Your task to perform on an android device: Empty the shopping cart on costco.com. Add "jbl flip 4" to the cart on costco.com, then select checkout. Image 0: 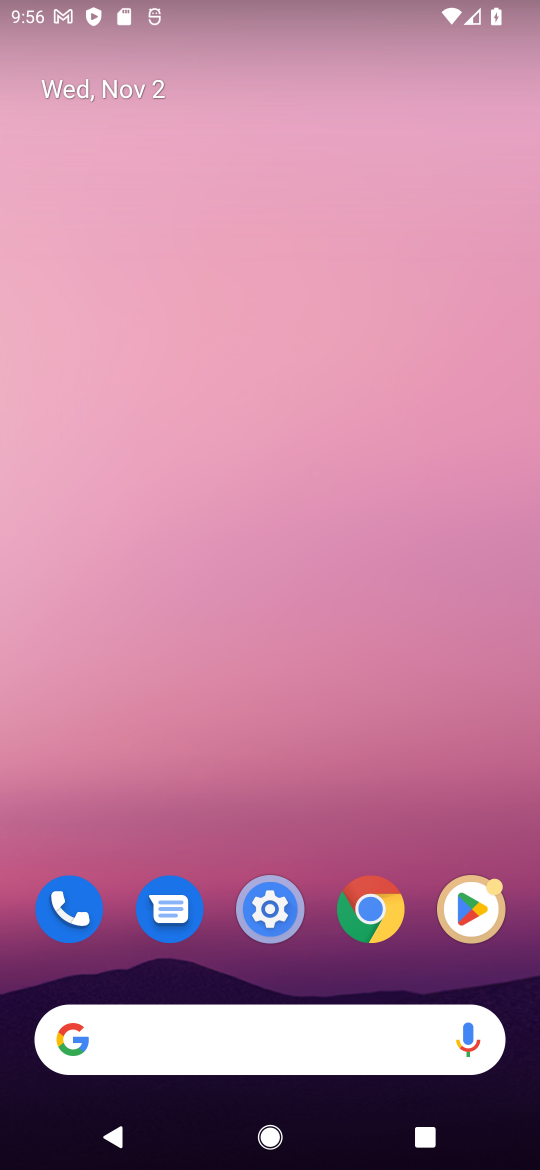
Step 0: click (364, 914)
Your task to perform on an android device: Empty the shopping cart on costco.com. Add "jbl flip 4" to the cart on costco.com, then select checkout. Image 1: 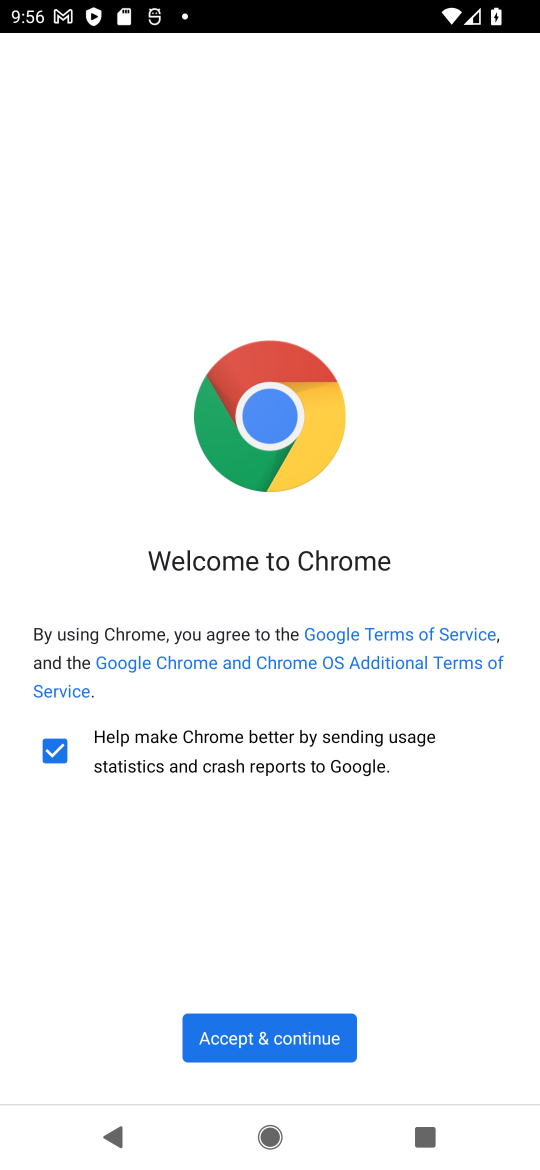
Step 1: click (286, 1051)
Your task to perform on an android device: Empty the shopping cart on costco.com. Add "jbl flip 4" to the cart on costco.com, then select checkout. Image 2: 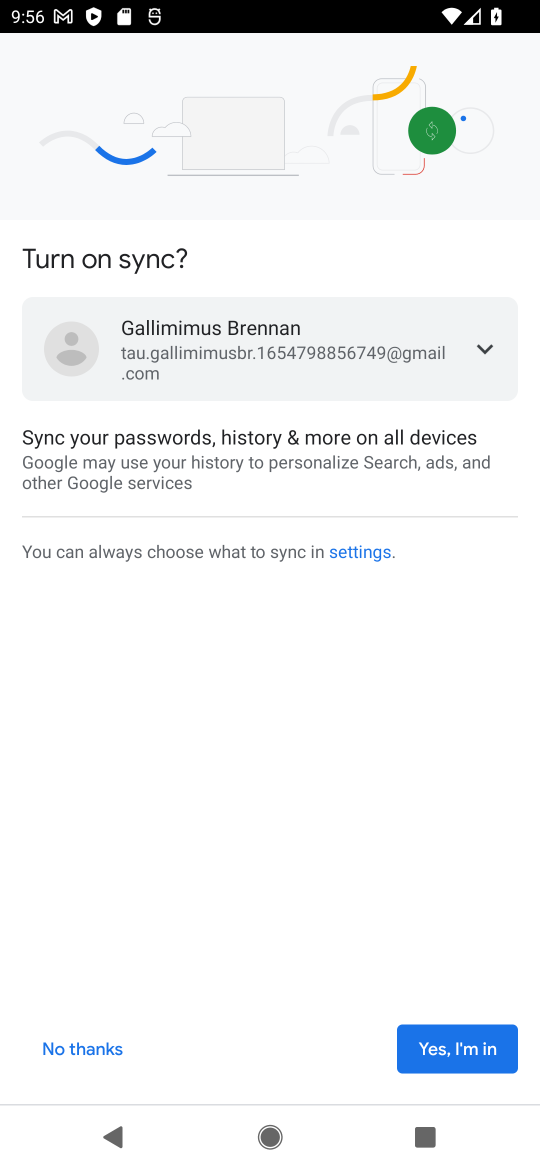
Step 2: click (487, 1044)
Your task to perform on an android device: Empty the shopping cart on costco.com. Add "jbl flip 4" to the cart on costco.com, then select checkout. Image 3: 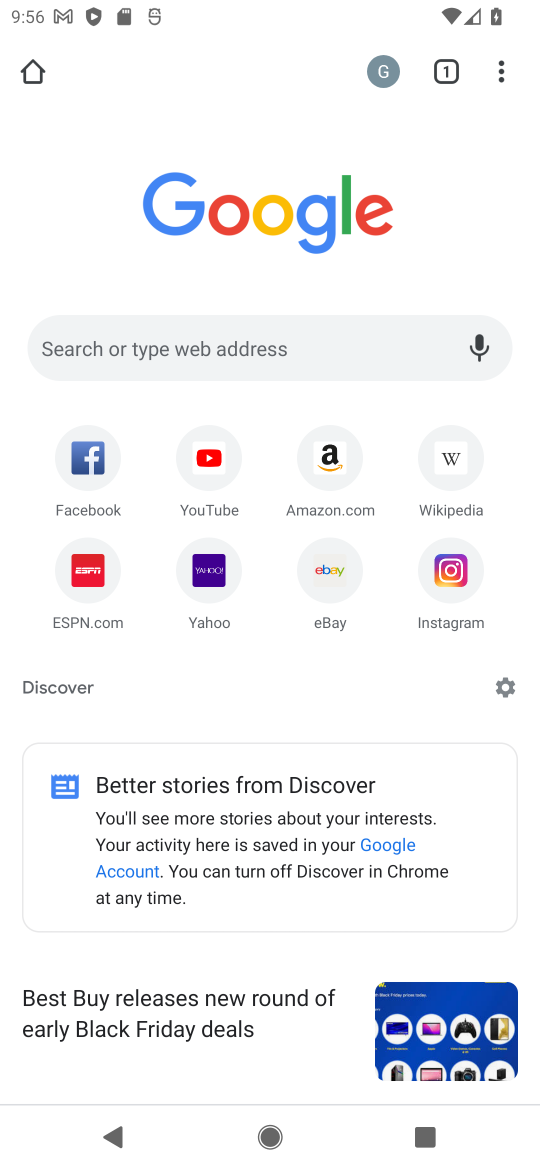
Step 3: click (317, 361)
Your task to perform on an android device: Empty the shopping cart on costco.com. Add "jbl flip 4" to the cart on costco.com, then select checkout. Image 4: 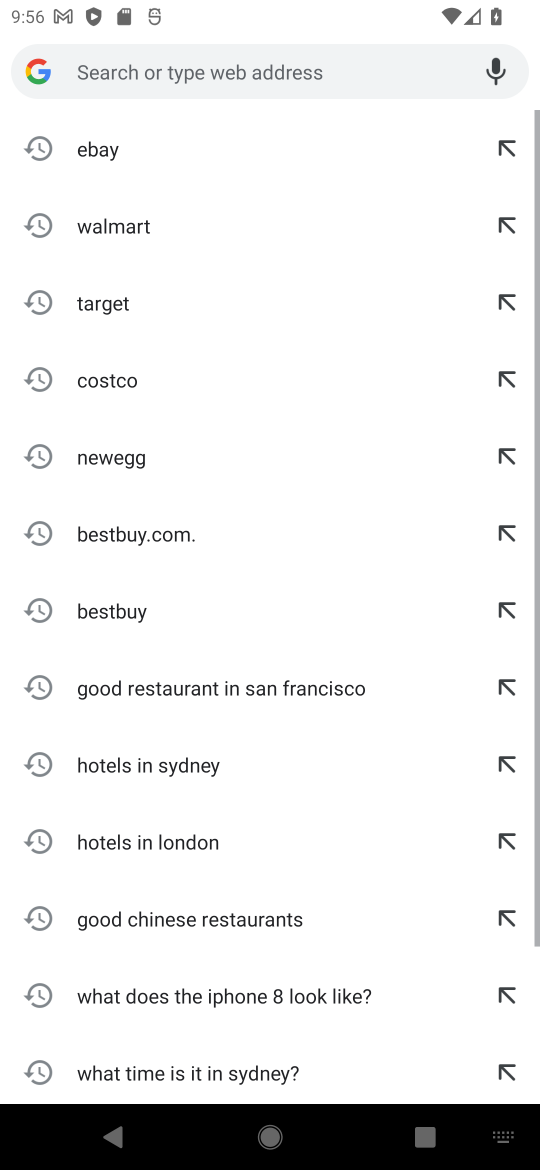
Step 4: type "costco.com"
Your task to perform on an android device: Empty the shopping cart on costco.com. Add "jbl flip 4" to the cart on costco.com, then select checkout. Image 5: 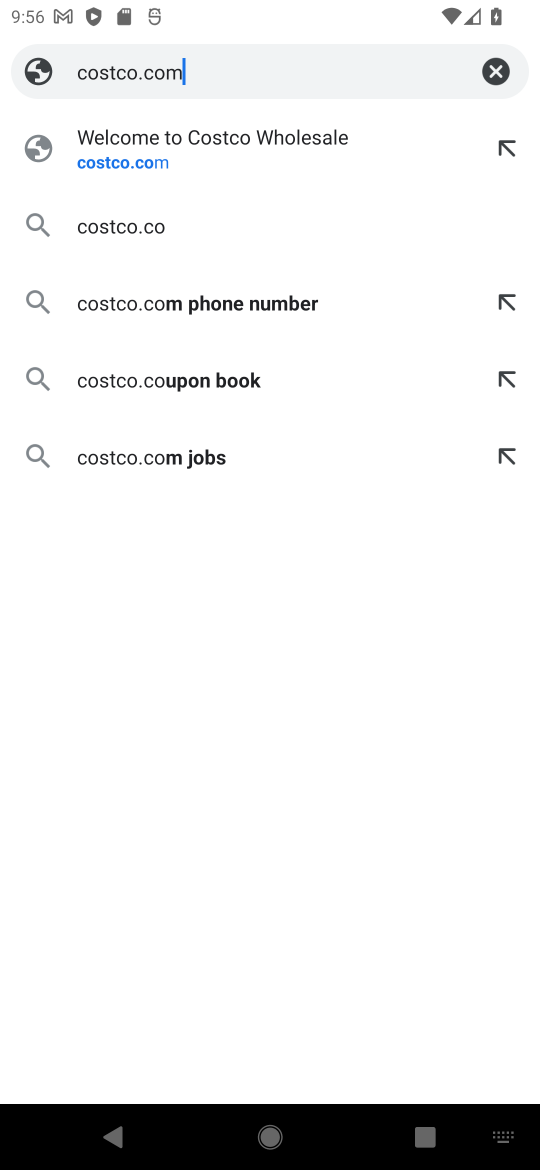
Step 5: type ""
Your task to perform on an android device: Empty the shopping cart on costco.com. Add "jbl flip 4" to the cart on costco.com, then select checkout. Image 6: 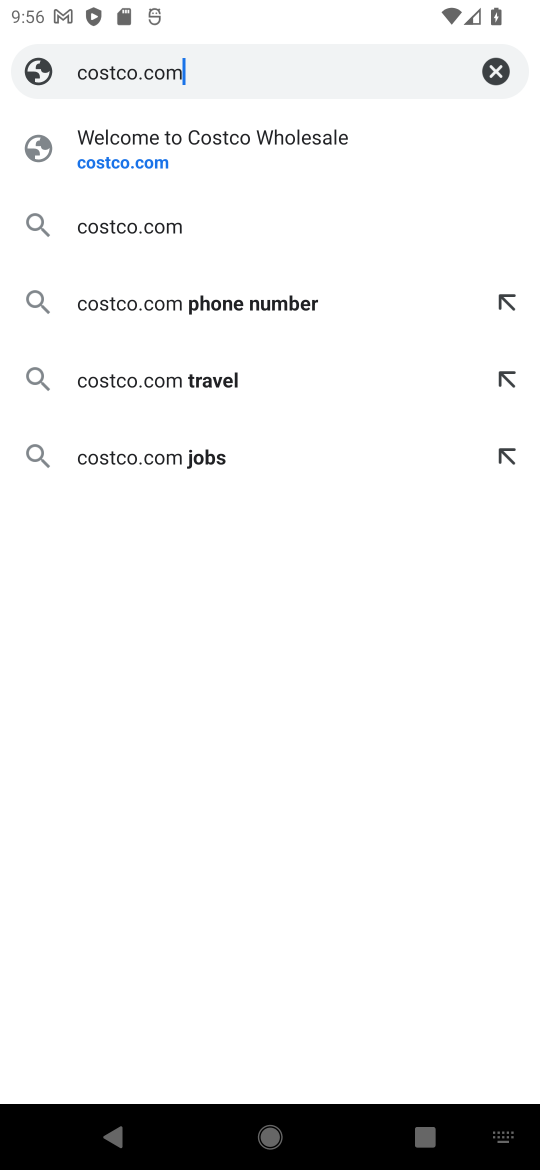
Step 6: press enter
Your task to perform on an android device: Empty the shopping cart on costco.com. Add "jbl flip 4" to the cart on costco.com, then select checkout. Image 7: 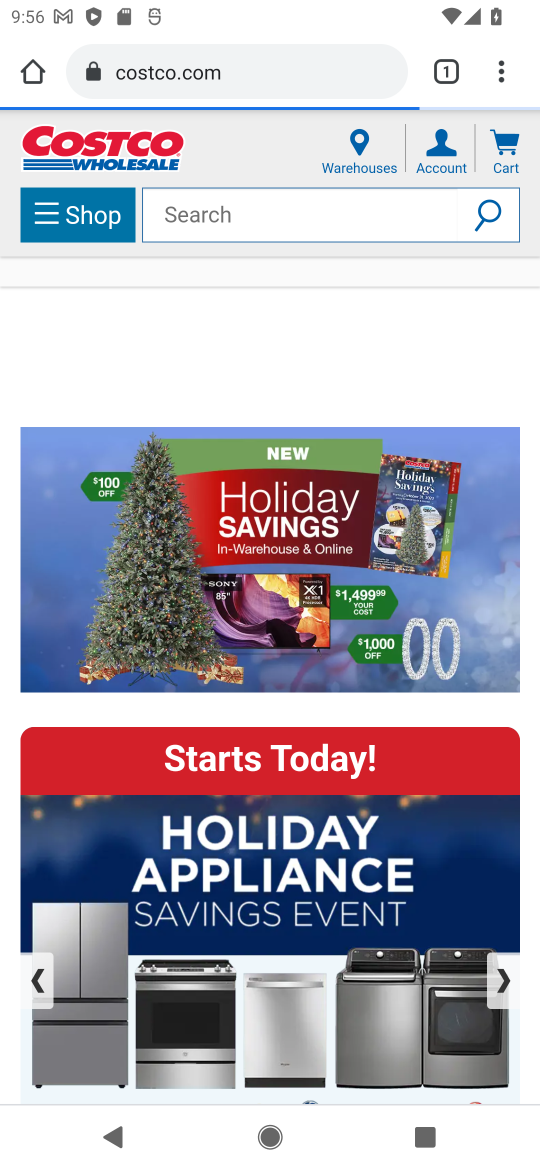
Step 7: click (499, 157)
Your task to perform on an android device: Empty the shopping cart on costco.com. Add "jbl flip 4" to the cart on costco.com, then select checkout. Image 8: 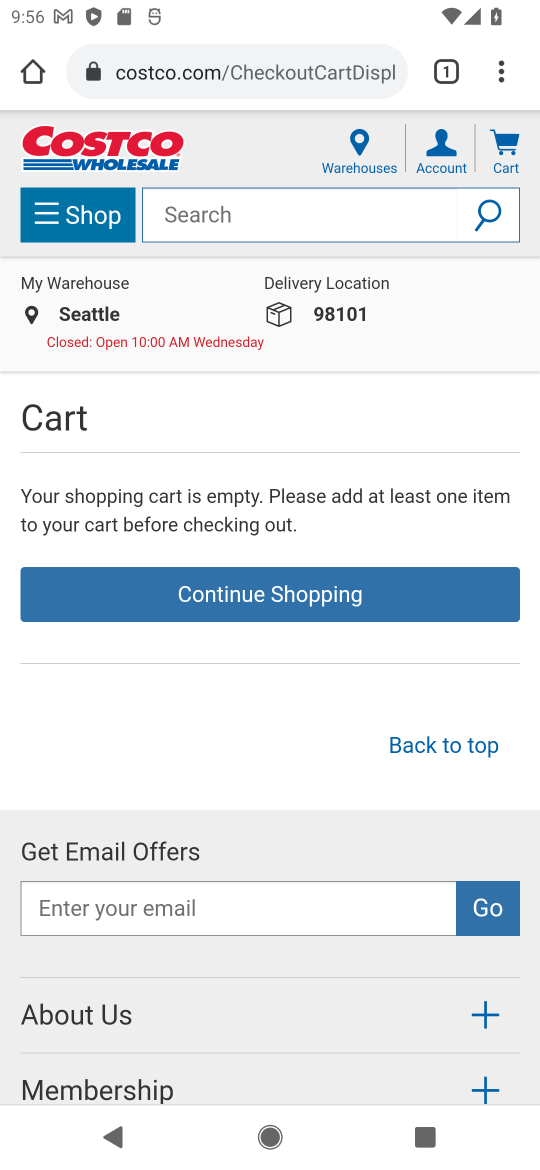
Step 8: click (248, 223)
Your task to perform on an android device: Empty the shopping cart on costco.com. Add "jbl flip 4" to the cart on costco.com, then select checkout. Image 9: 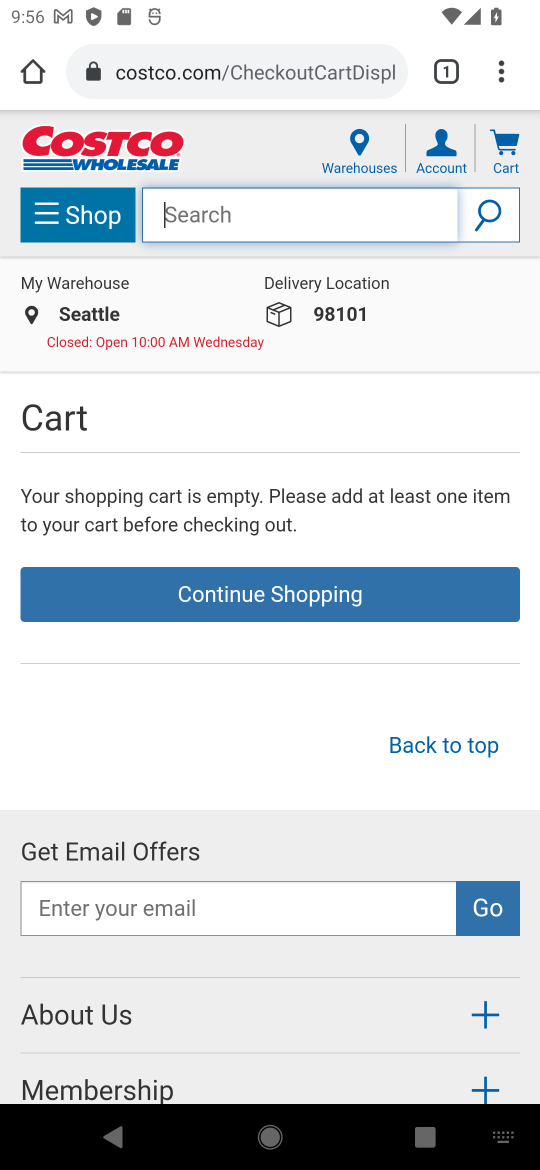
Step 9: type "jbl flip 4"
Your task to perform on an android device: Empty the shopping cart on costco.com. Add "jbl flip 4" to the cart on costco.com, then select checkout. Image 10: 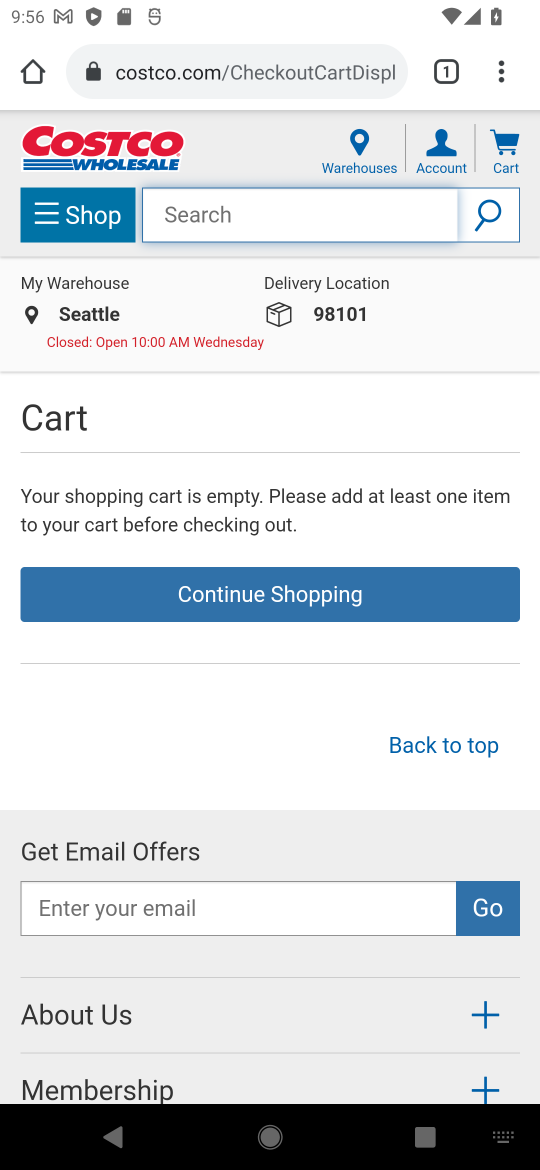
Step 10: type ""
Your task to perform on an android device: Empty the shopping cart on costco.com. Add "jbl flip 4" to the cart on costco.com, then select checkout. Image 11: 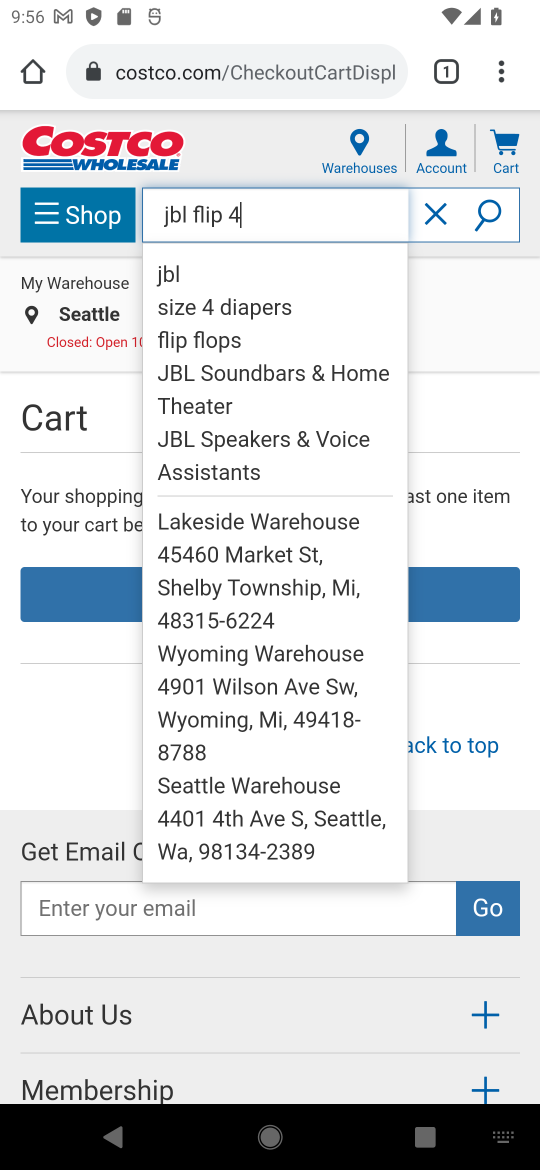
Step 11: press enter
Your task to perform on an android device: Empty the shopping cart on costco.com. Add "jbl flip 4" to the cart on costco.com, then select checkout. Image 12: 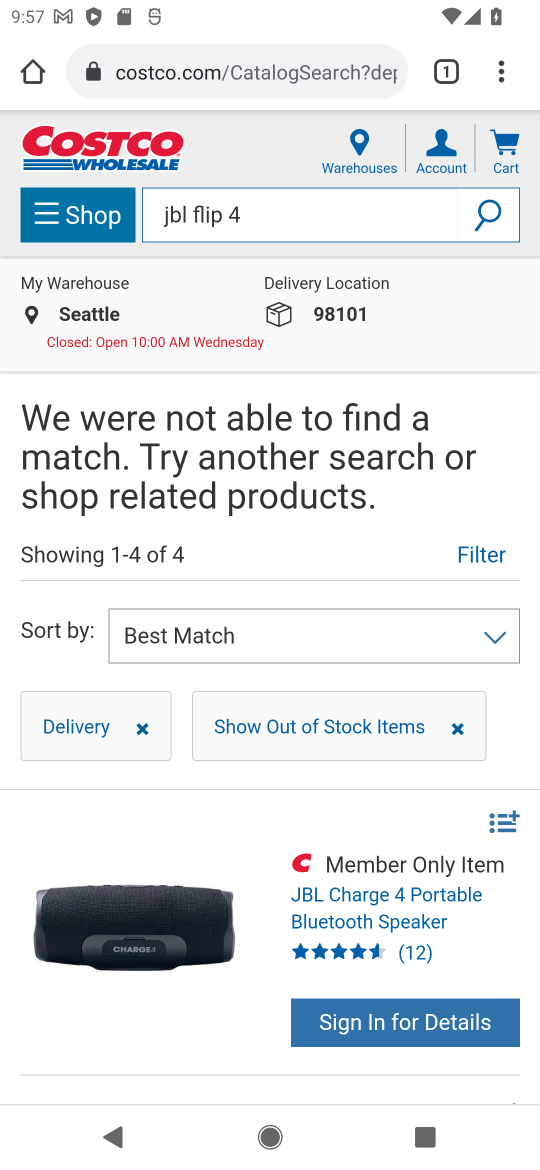
Step 12: task complete